Your task to perform on an android device: turn off data saver in the chrome app Image 0: 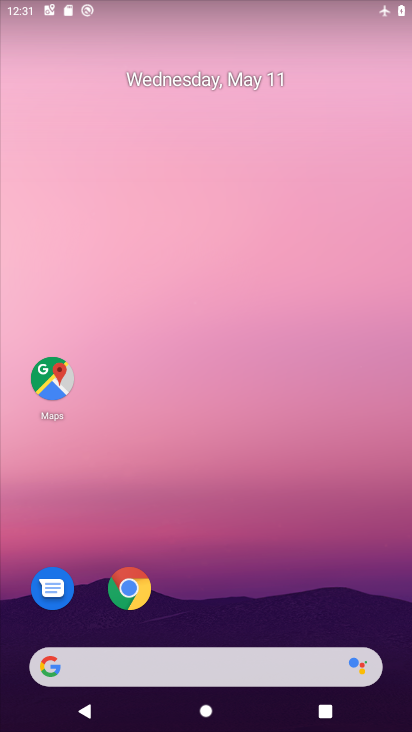
Step 0: click (132, 578)
Your task to perform on an android device: turn off data saver in the chrome app Image 1: 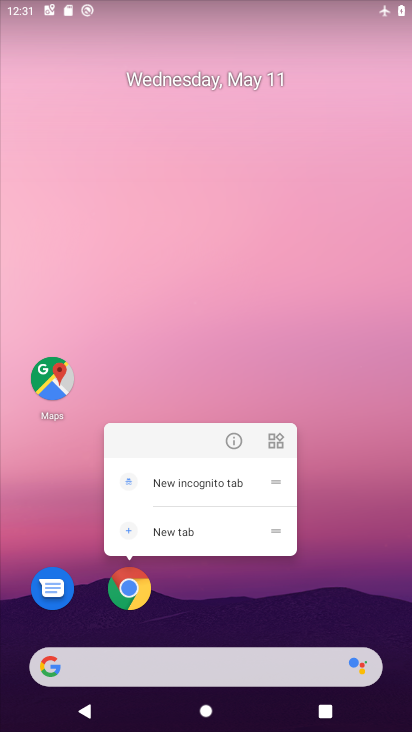
Step 1: click (119, 602)
Your task to perform on an android device: turn off data saver in the chrome app Image 2: 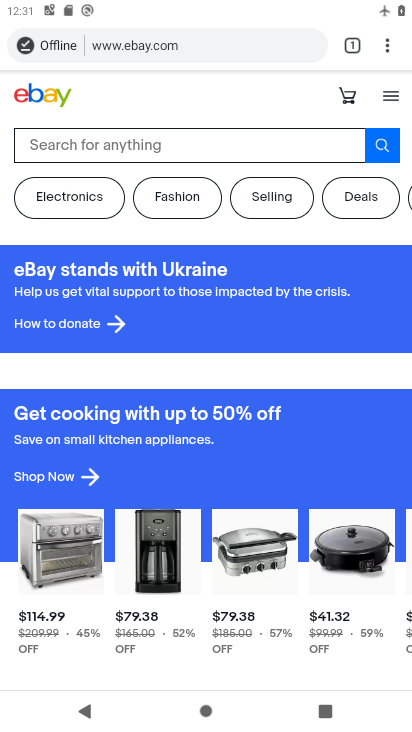
Step 2: click (392, 46)
Your task to perform on an android device: turn off data saver in the chrome app Image 3: 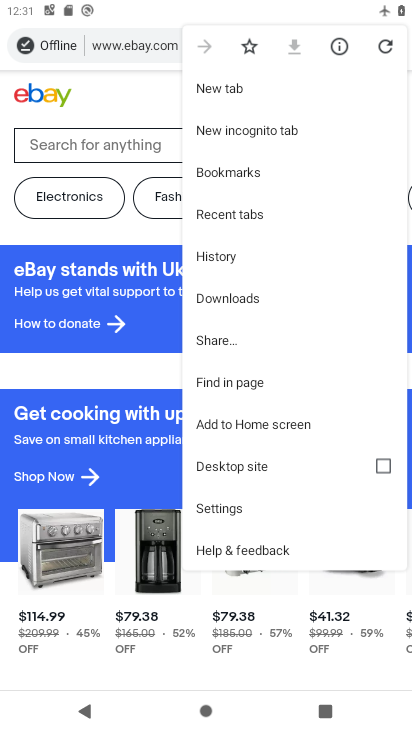
Step 3: click (237, 498)
Your task to perform on an android device: turn off data saver in the chrome app Image 4: 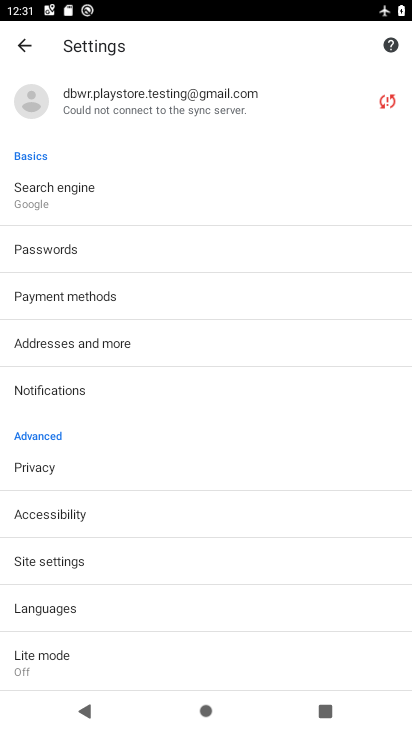
Step 4: click (50, 659)
Your task to perform on an android device: turn off data saver in the chrome app Image 5: 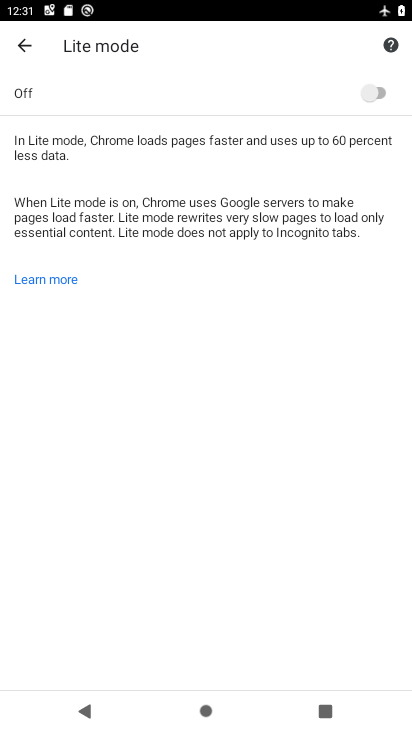
Step 5: task complete